Your task to perform on an android device: Open display settings Image 0: 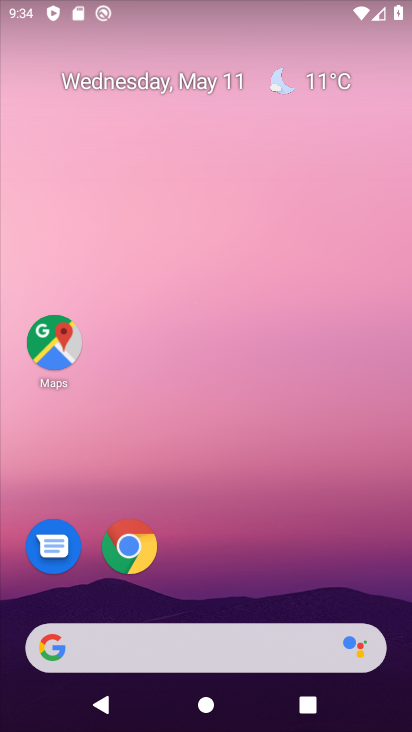
Step 0: drag from (193, 648) to (112, 28)
Your task to perform on an android device: Open display settings Image 1: 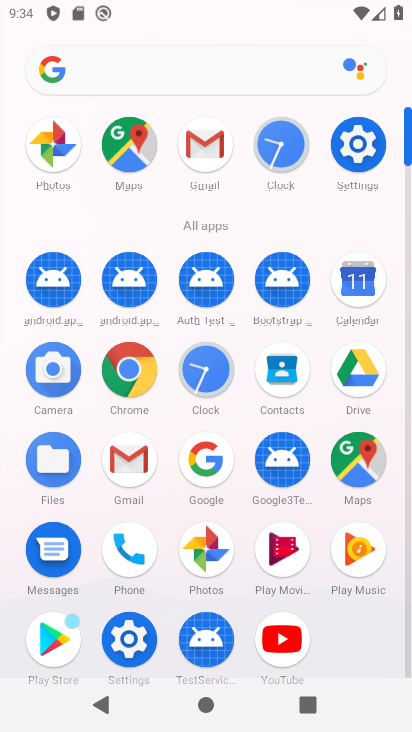
Step 1: click (353, 156)
Your task to perform on an android device: Open display settings Image 2: 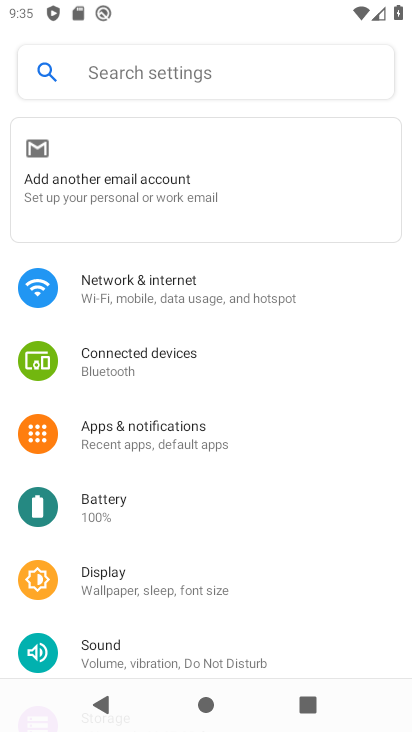
Step 2: click (129, 585)
Your task to perform on an android device: Open display settings Image 3: 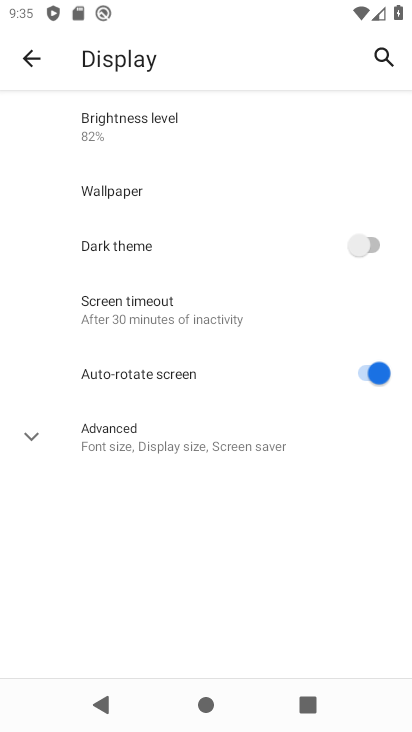
Step 3: task complete